Your task to perform on an android device: turn on improve location accuracy Image 0: 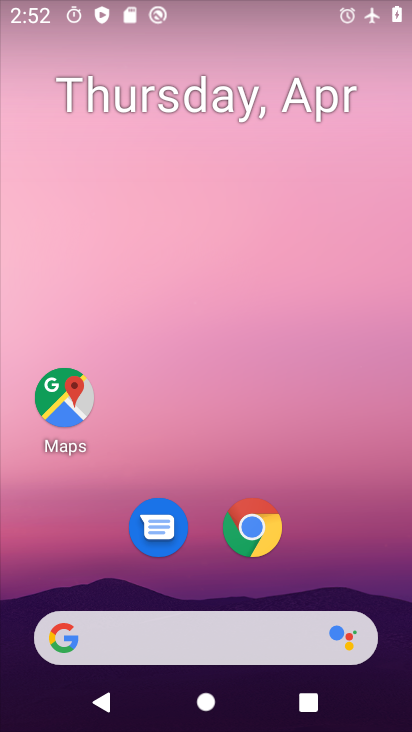
Step 0: drag from (320, 527) to (289, 126)
Your task to perform on an android device: turn on improve location accuracy Image 1: 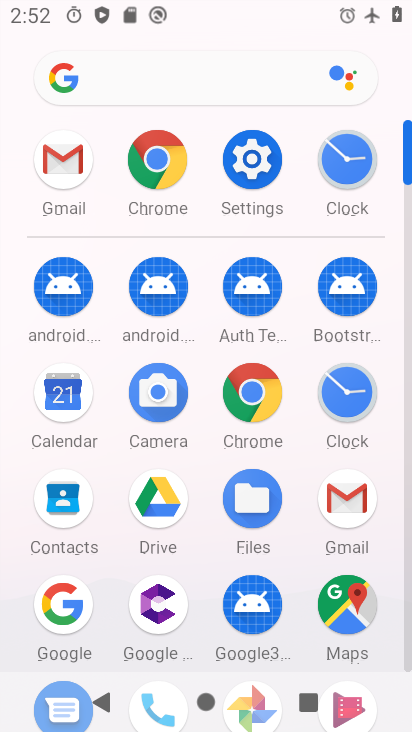
Step 1: click (247, 163)
Your task to perform on an android device: turn on improve location accuracy Image 2: 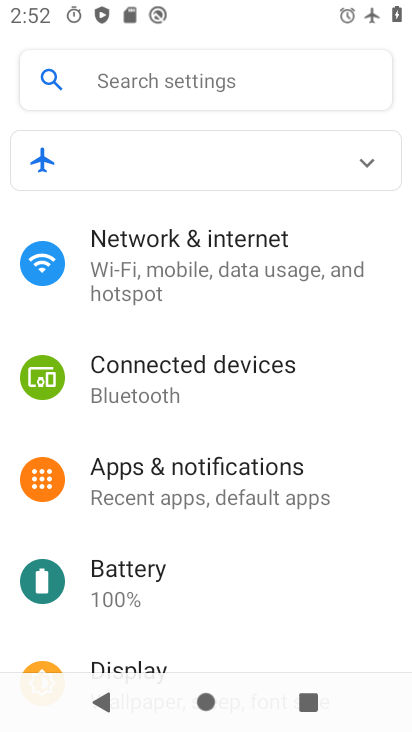
Step 2: drag from (236, 610) to (248, 285)
Your task to perform on an android device: turn on improve location accuracy Image 3: 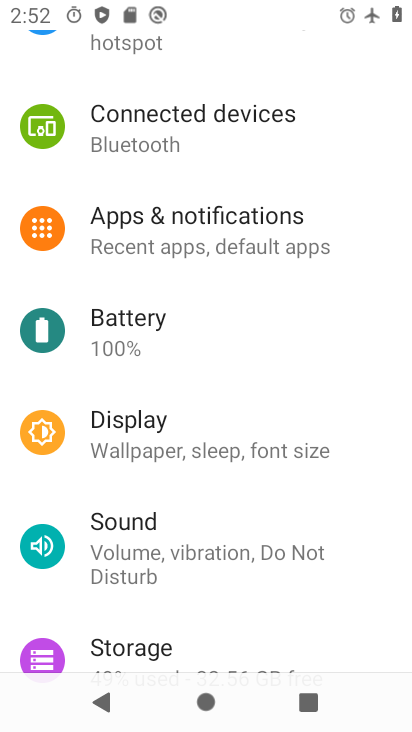
Step 3: drag from (261, 570) to (259, 243)
Your task to perform on an android device: turn on improve location accuracy Image 4: 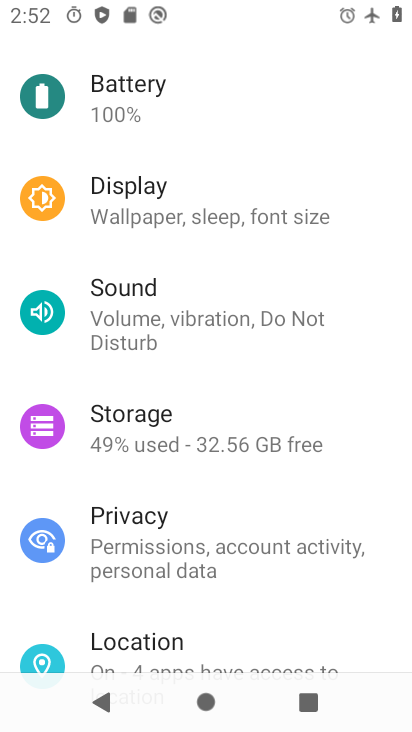
Step 4: drag from (317, 543) to (254, 232)
Your task to perform on an android device: turn on improve location accuracy Image 5: 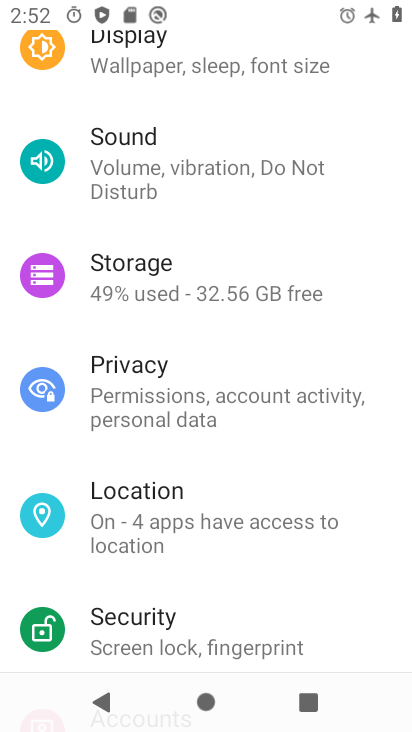
Step 5: click (170, 496)
Your task to perform on an android device: turn on improve location accuracy Image 6: 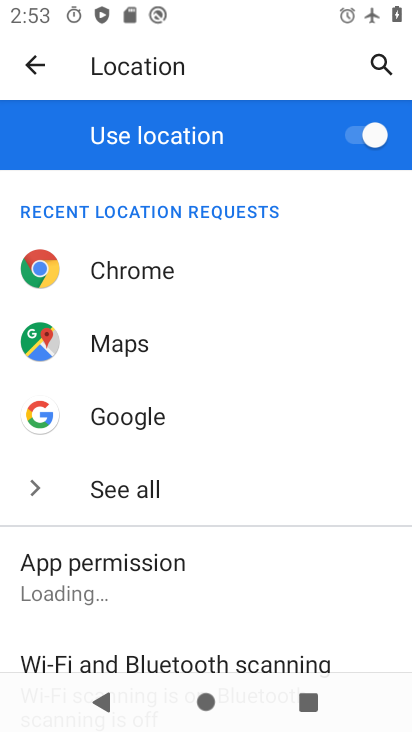
Step 6: drag from (208, 573) to (291, 141)
Your task to perform on an android device: turn on improve location accuracy Image 7: 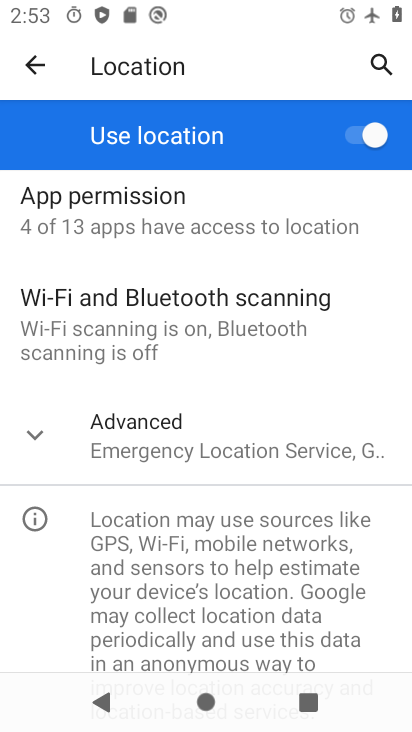
Step 7: click (172, 429)
Your task to perform on an android device: turn on improve location accuracy Image 8: 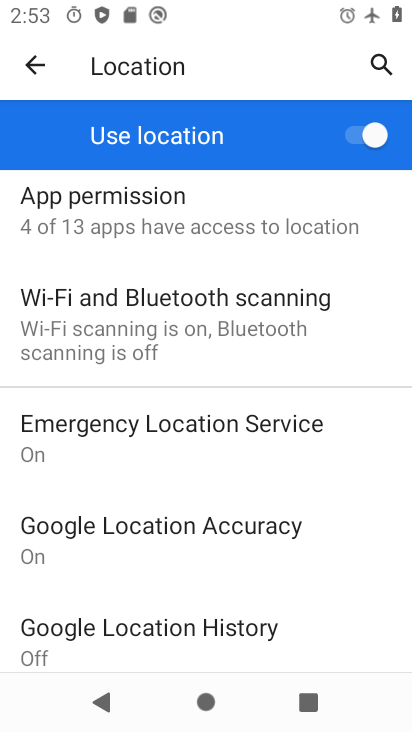
Step 8: click (259, 533)
Your task to perform on an android device: turn on improve location accuracy Image 9: 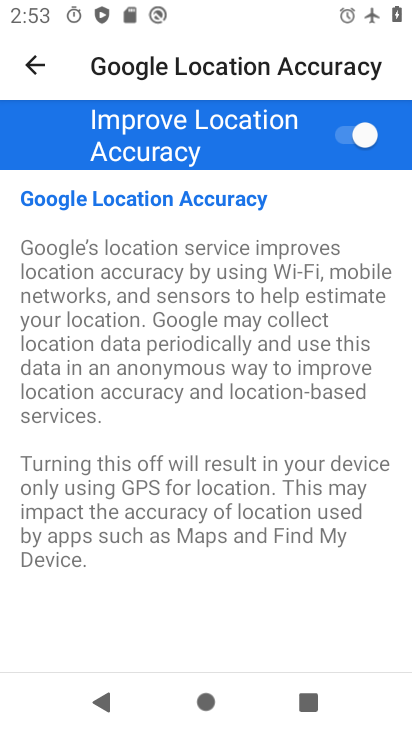
Step 9: task complete